Your task to perform on an android device: change timer sound Image 0: 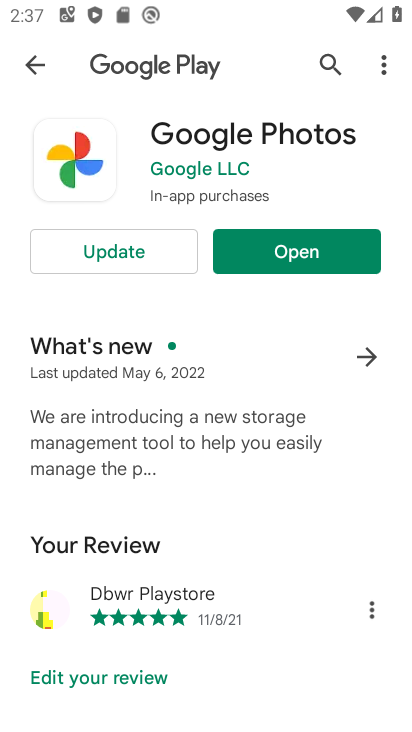
Step 0: press home button
Your task to perform on an android device: change timer sound Image 1: 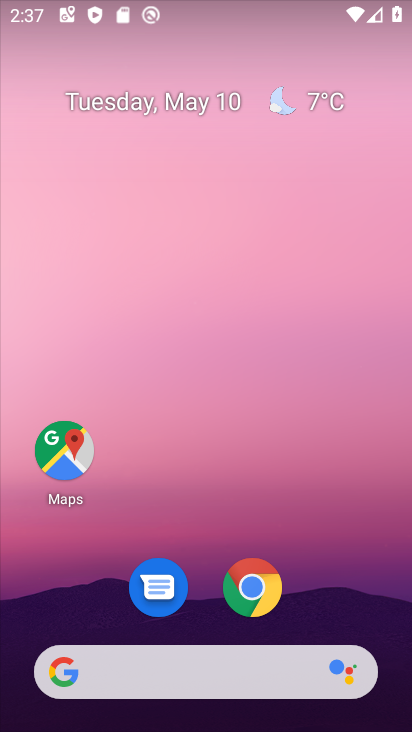
Step 1: drag from (315, 501) to (267, 69)
Your task to perform on an android device: change timer sound Image 2: 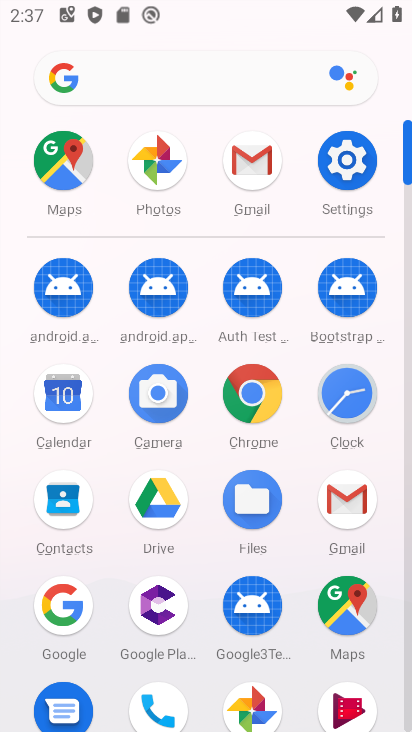
Step 2: click (342, 388)
Your task to perform on an android device: change timer sound Image 3: 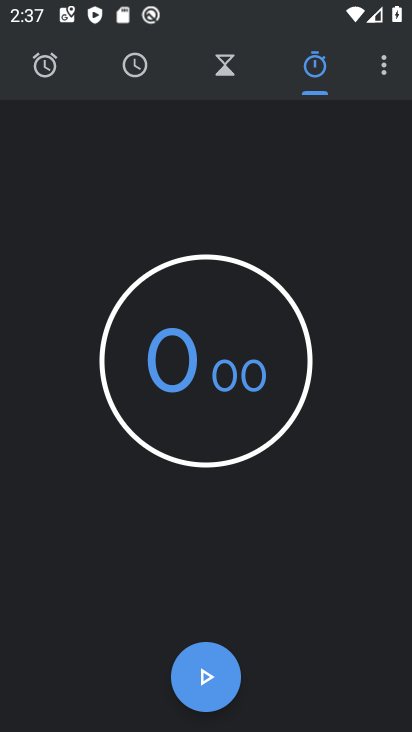
Step 3: click (383, 65)
Your task to perform on an android device: change timer sound Image 4: 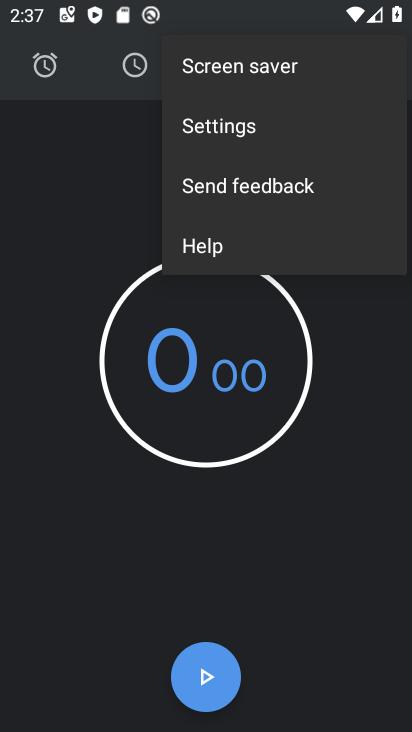
Step 4: click (223, 135)
Your task to perform on an android device: change timer sound Image 5: 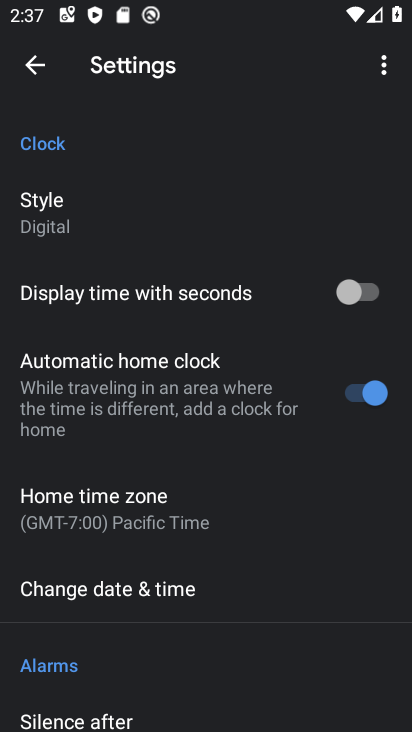
Step 5: drag from (185, 651) to (169, 297)
Your task to perform on an android device: change timer sound Image 6: 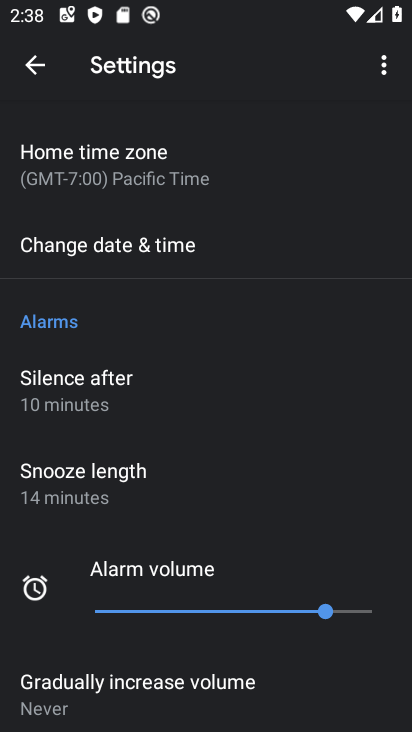
Step 6: drag from (169, 668) to (169, 323)
Your task to perform on an android device: change timer sound Image 7: 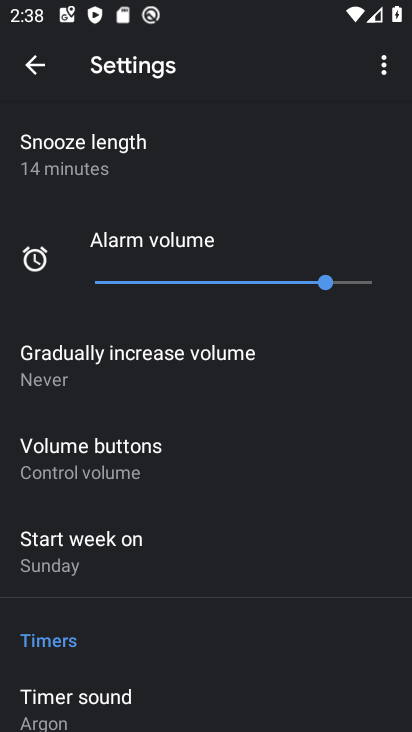
Step 7: click (112, 695)
Your task to perform on an android device: change timer sound Image 8: 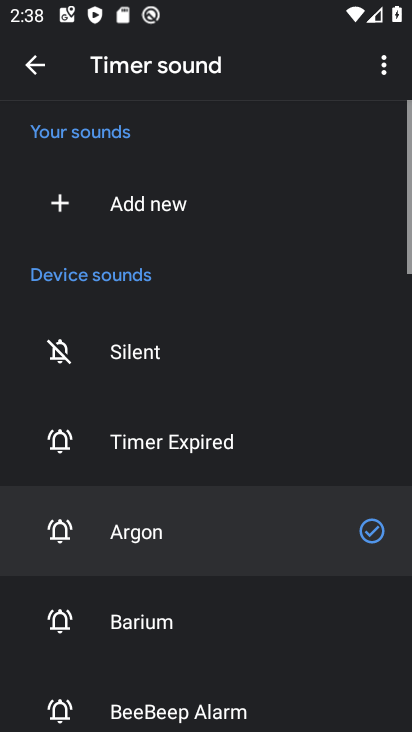
Step 8: click (175, 625)
Your task to perform on an android device: change timer sound Image 9: 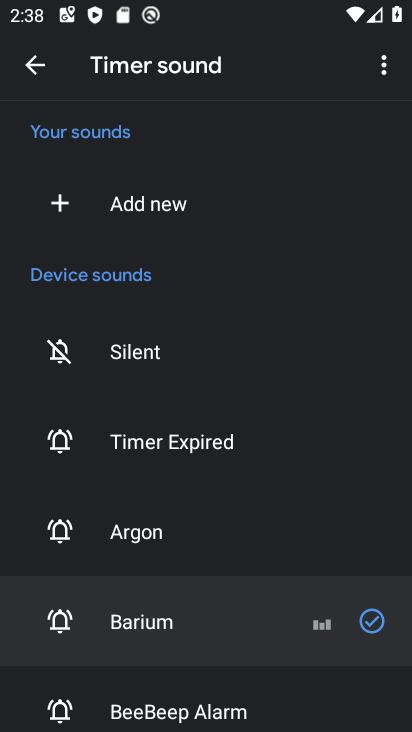
Step 9: task complete